Your task to perform on an android device: move an email to a new category in the gmail app Image 0: 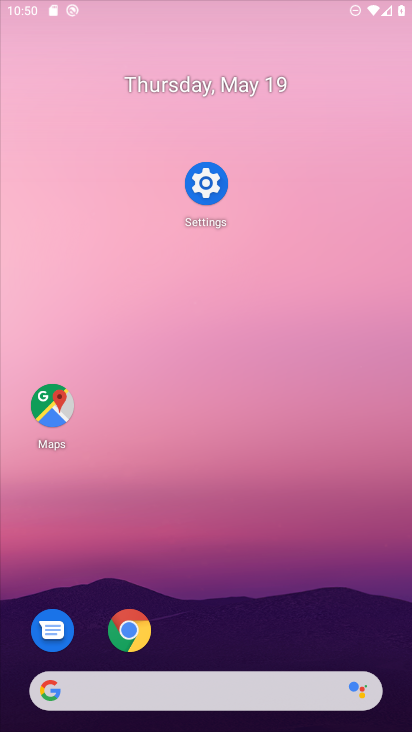
Step 0: drag from (297, 657) to (96, 2)
Your task to perform on an android device: move an email to a new category in the gmail app Image 1: 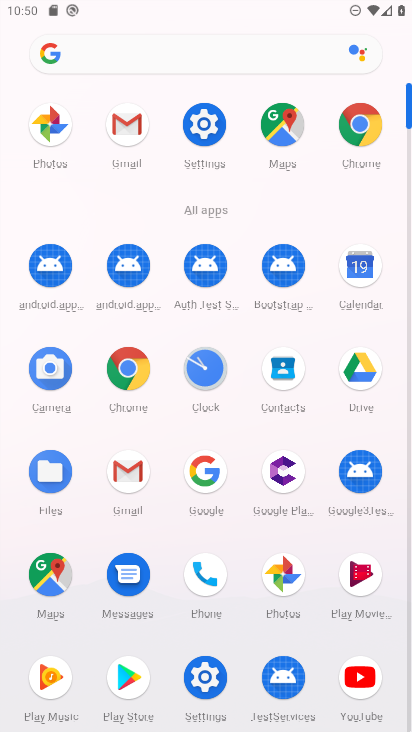
Step 1: click (125, 494)
Your task to perform on an android device: move an email to a new category in the gmail app Image 2: 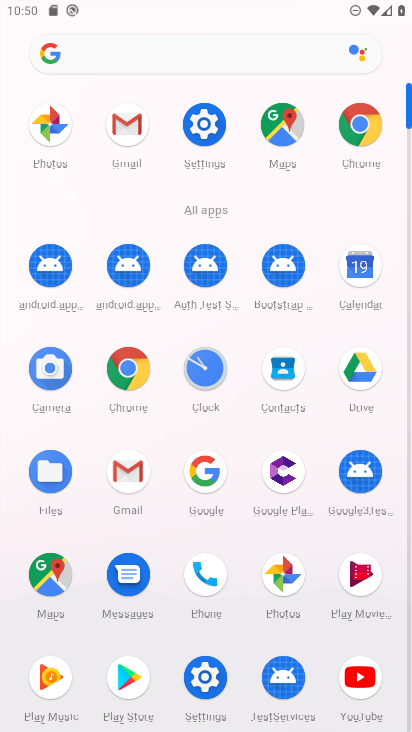
Step 2: click (128, 492)
Your task to perform on an android device: move an email to a new category in the gmail app Image 3: 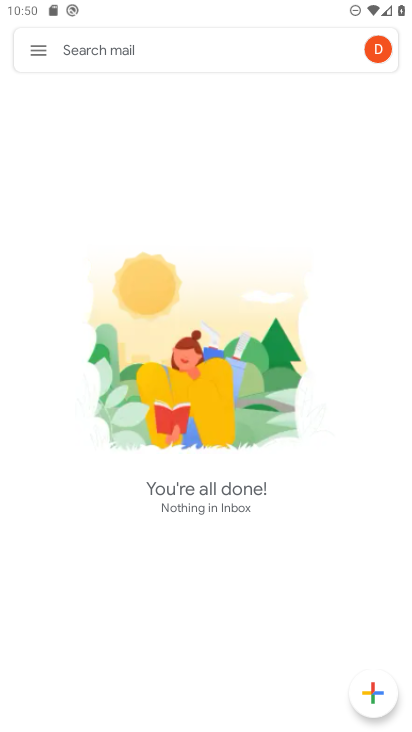
Step 3: click (27, 40)
Your task to perform on an android device: move an email to a new category in the gmail app Image 4: 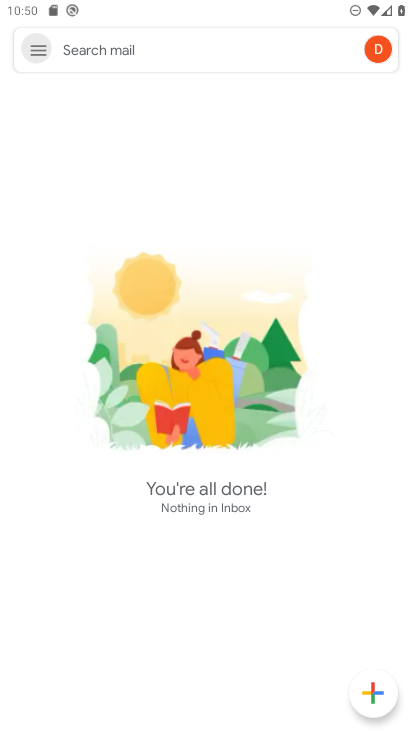
Step 4: click (28, 40)
Your task to perform on an android device: move an email to a new category in the gmail app Image 5: 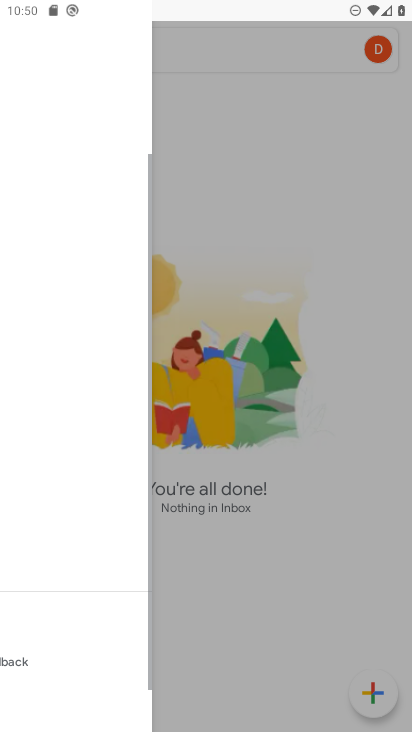
Step 5: drag from (28, 40) to (66, 617)
Your task to perform on an android device: move an email to a new category in the gmail app Image 6: 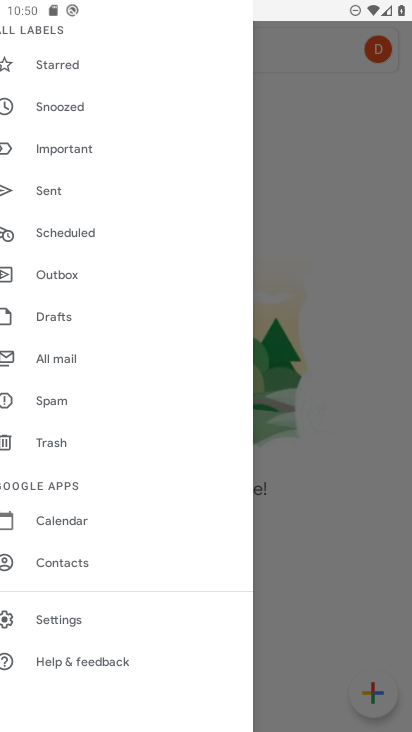
Step 6: click (68, 614)
Your task to perform on an android device: move an email to a new category in the gmail app Image 7: 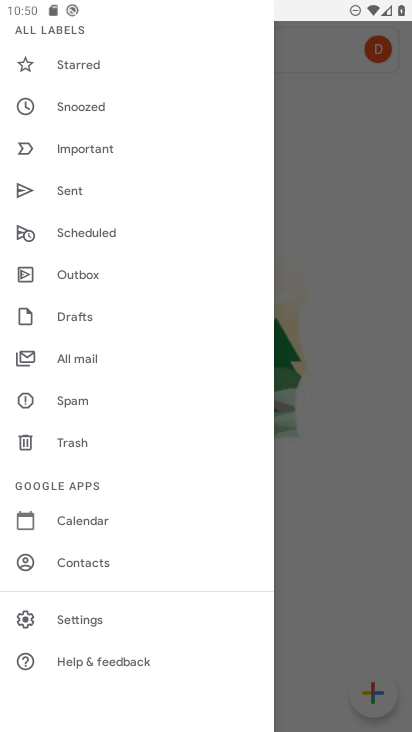
Step 7: click (68, 614)
Your task to perform on an android device: move an email to a new category in the gmail app Image 8: 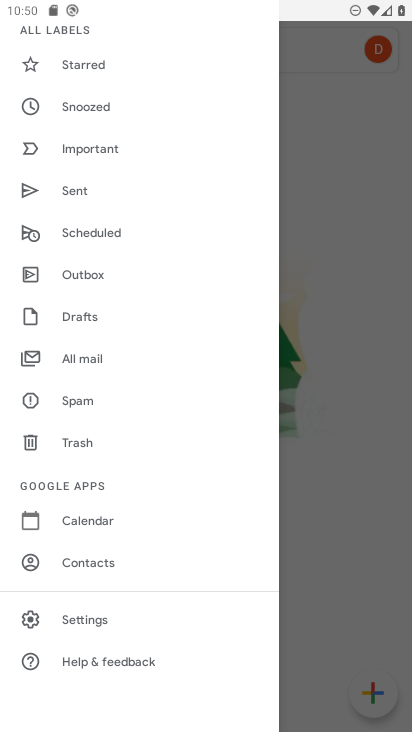
Step 8: click (68, 614)
Your task to perform on an android device: move an email to a new category in the gmail app Image 9: 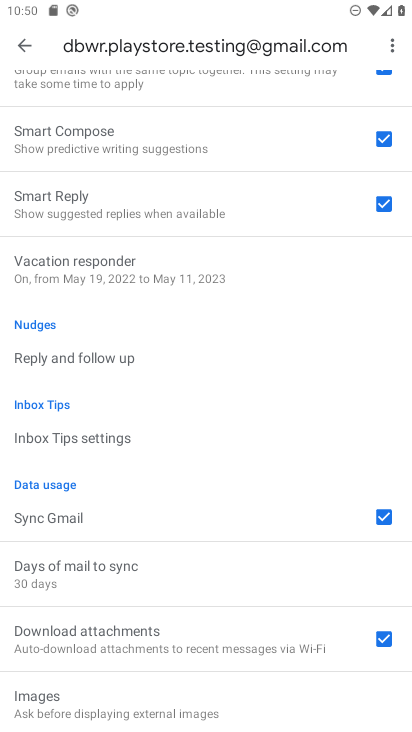
Step 9: click (18, 44)
Your task to perform on an android device: move an email to a new category in the gmail app Image 10: 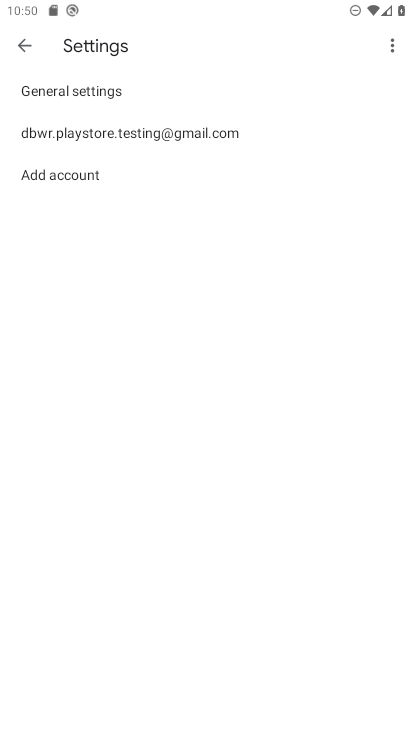
Step 10: click (110, 138)
Your task to perform on an android device: move an email to a new category in the gmail app Image 11: 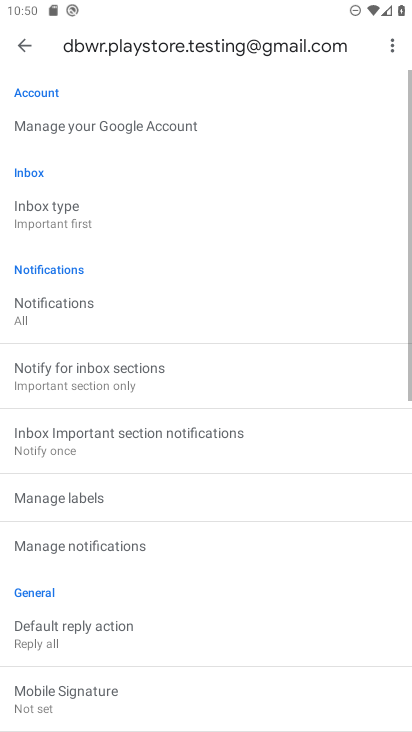
Step 11: click (31, 48)
Your task to perform on an android device: move an email to a new category in the gmail app Image 12: 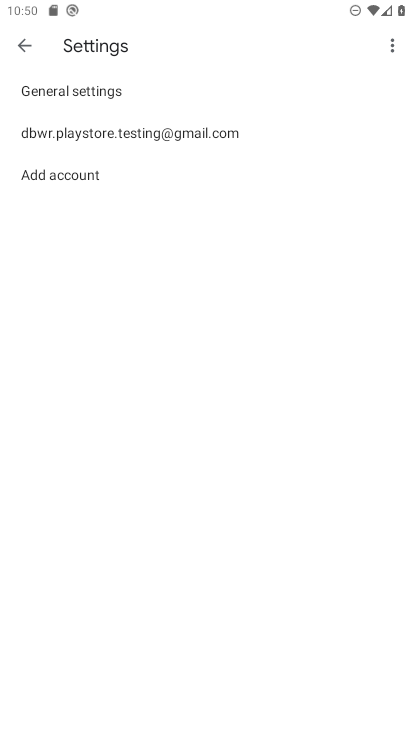
Step 12: click (31, 48)
Your task to perform on an android device: move an email to a new category in the gmail app Image 13: 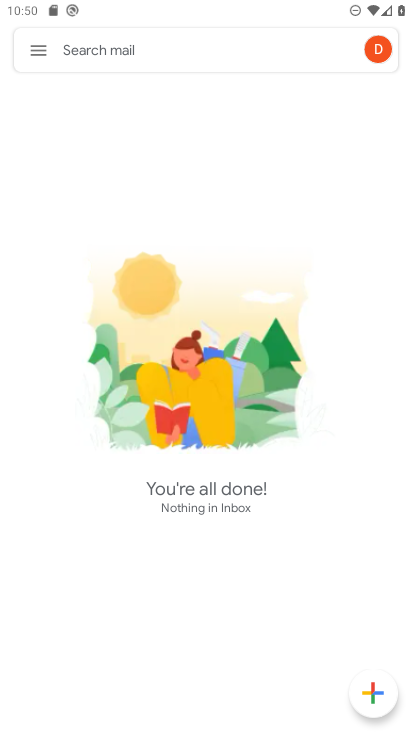
Step 13: click (41, 54)
Your task to perform on an android device: move an email to a new category in the gmail app Image 14: 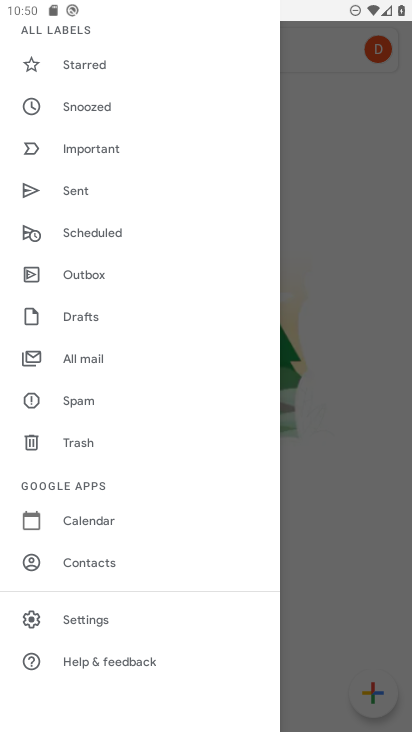
Step 14: click (73, 357)
Your task to perform on an android device: move an email to a new category in the gmail app Image 15: 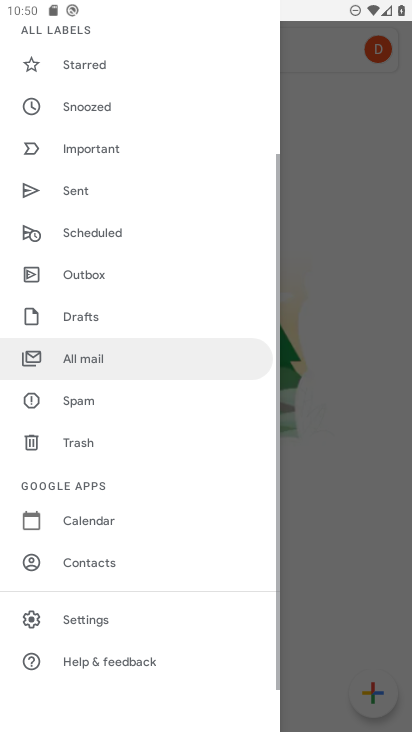
Step 15: click (73, 357)
Your task to perform on an android device: move an email to a new category in the gmail app Image 16: 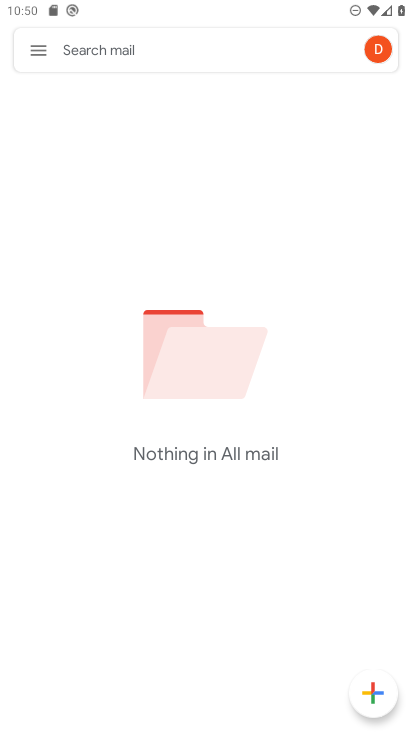
Step 16: task complete